Your task to perform on an android device: change your default location settings in chrome Image 0: 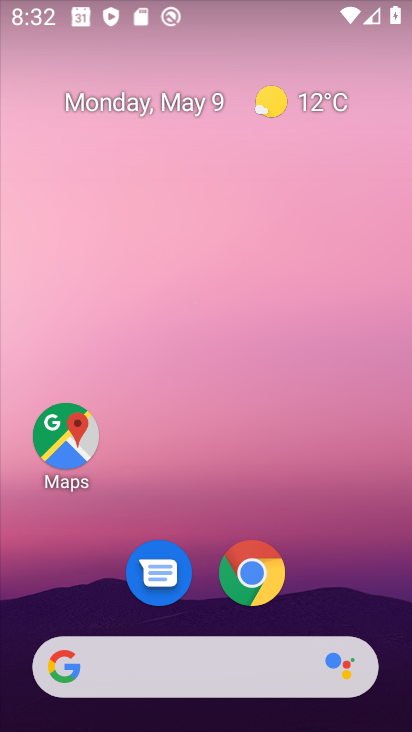
Step 0: drag from (267, 634) to (269, 195)
Your task to perform on an android device: change your default location settings in chrome Image 1: 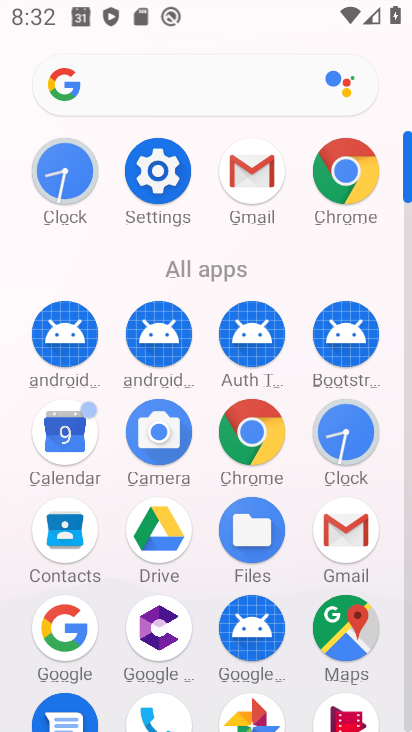
Step 1: click (349, 182)
Your task to perform on an android device: change your default location settings in chrome Image 2: 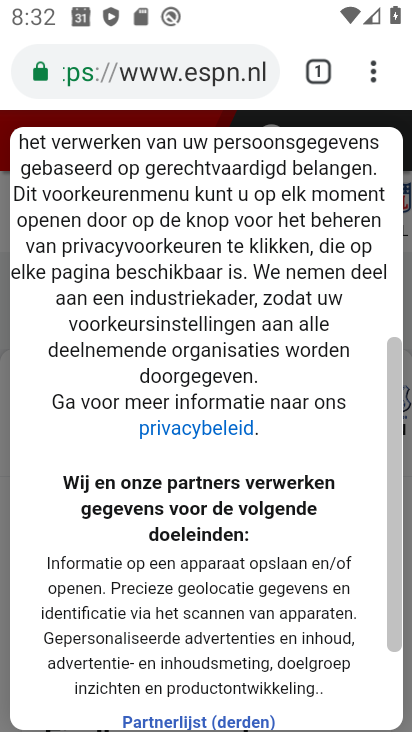
Step 2: click (366, 74)
Your task to perform on an android device: change your default location settings in chrome Image 3: 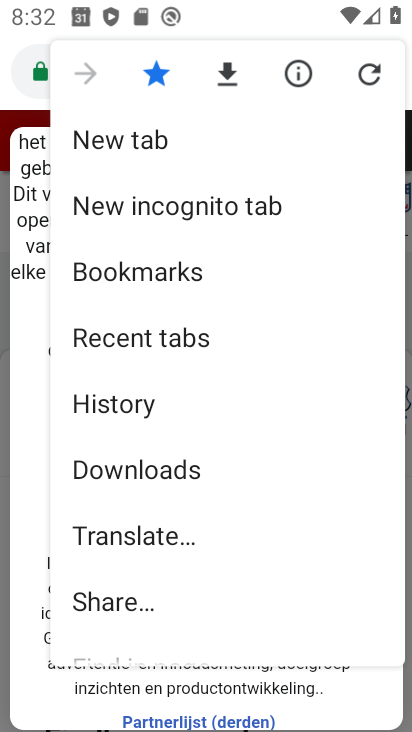
Step 3: drag from (295, 408) to (318, 53)
Your task to perform on an android device: change your default location settings in chrome Image 4: 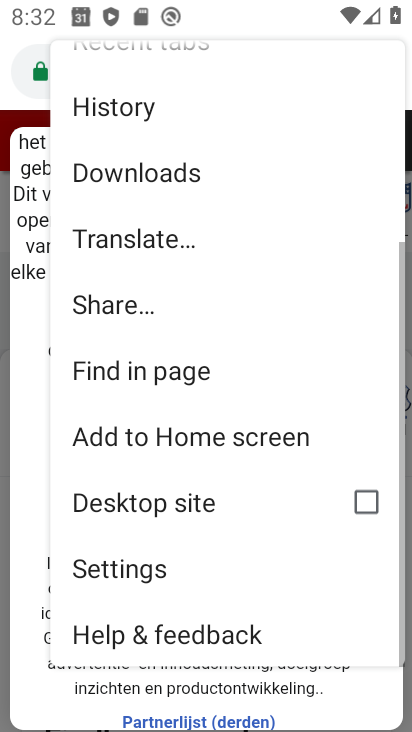
Step 4: drag from (236, 529) to (249, 212)
Your task to perform on an android device: change your default location settings in chrome Image 5: 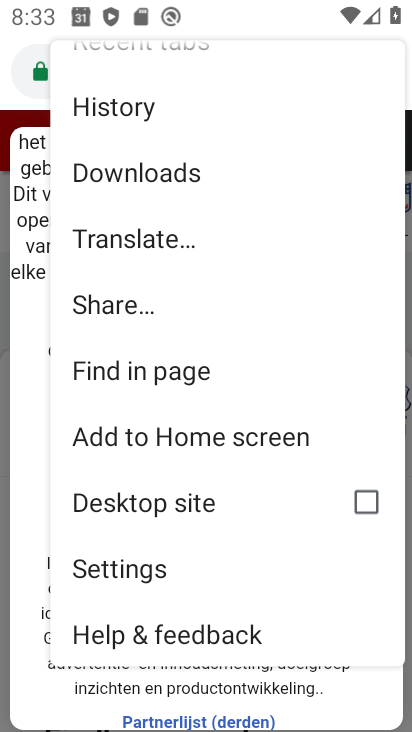
Step 5: click (170, 562)
Your task to perform on an android device: change your default location settings in chrome Image 6: 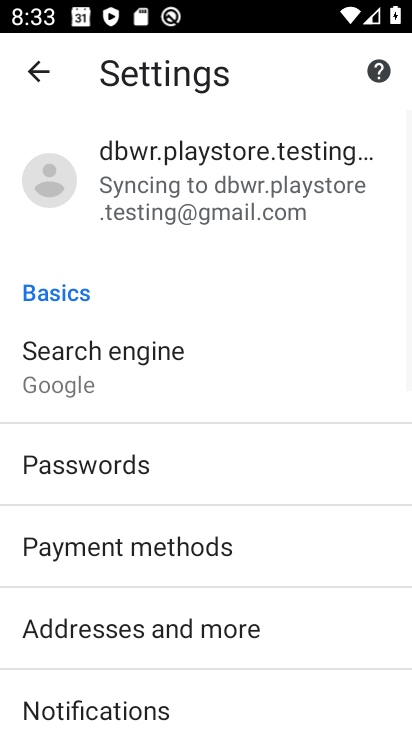
Step 6: drag from (170, 562) to (181, 357)
Your task to perform on an android device: change your default location settings in chrome Image 7: 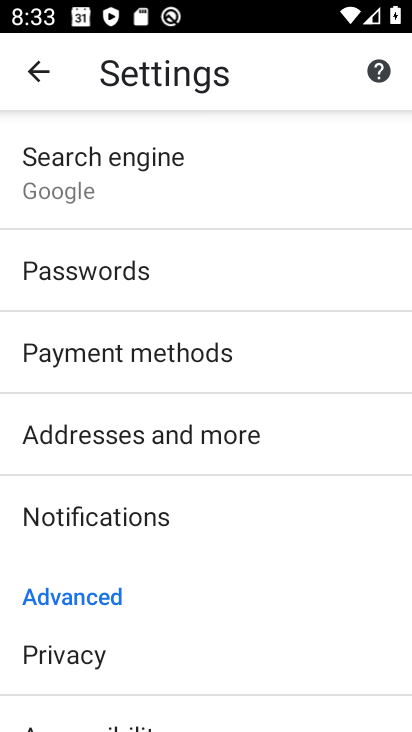
Step 7: drag from (195, 484) to (213, 302)
Your task to perform on an android device: change your default location settings in chrome Image 8: 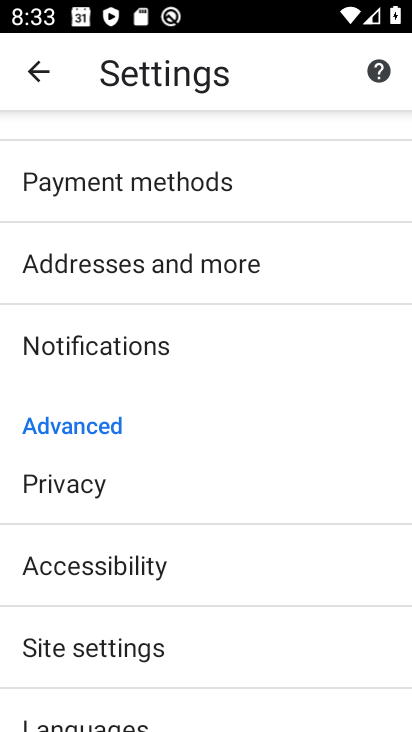
Step 8: click (120, 654)
Your task to perform on an android device: change your default location settings in chrome Image 9: 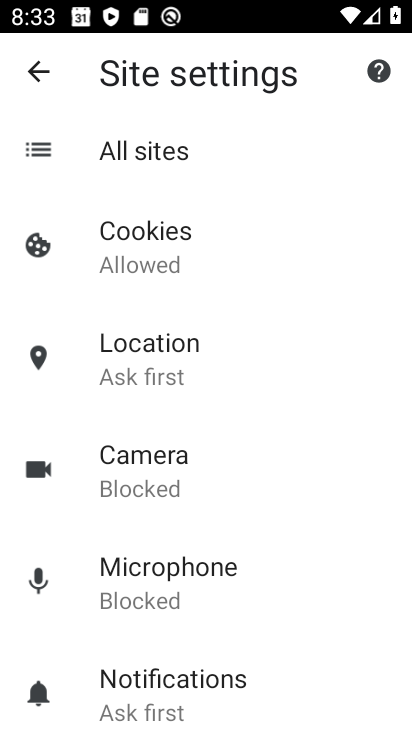
Step 9: click (183, 369)
Your task to perform on an android device: change your default location settings in chrome Image 10: 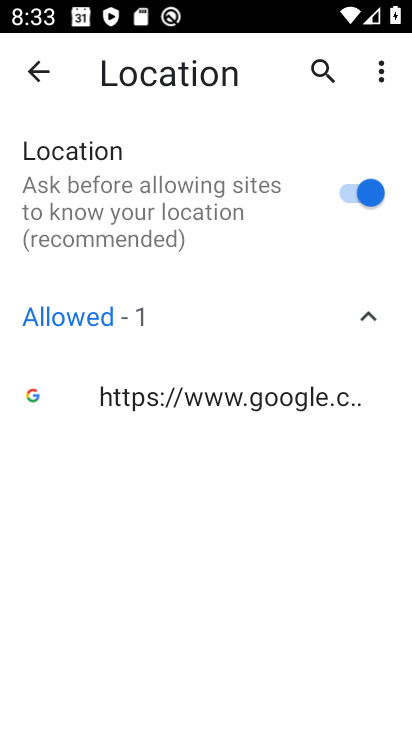
Step 10: click (332, 197)
Your task to perform on an android device: change your default location settings in chrome Image 11: 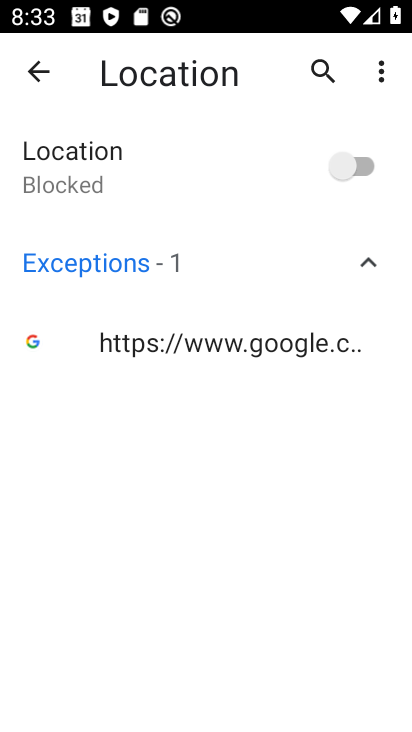
Step 11: task complete